Your task to perform on an android device: open device folders in google photos Image 0: 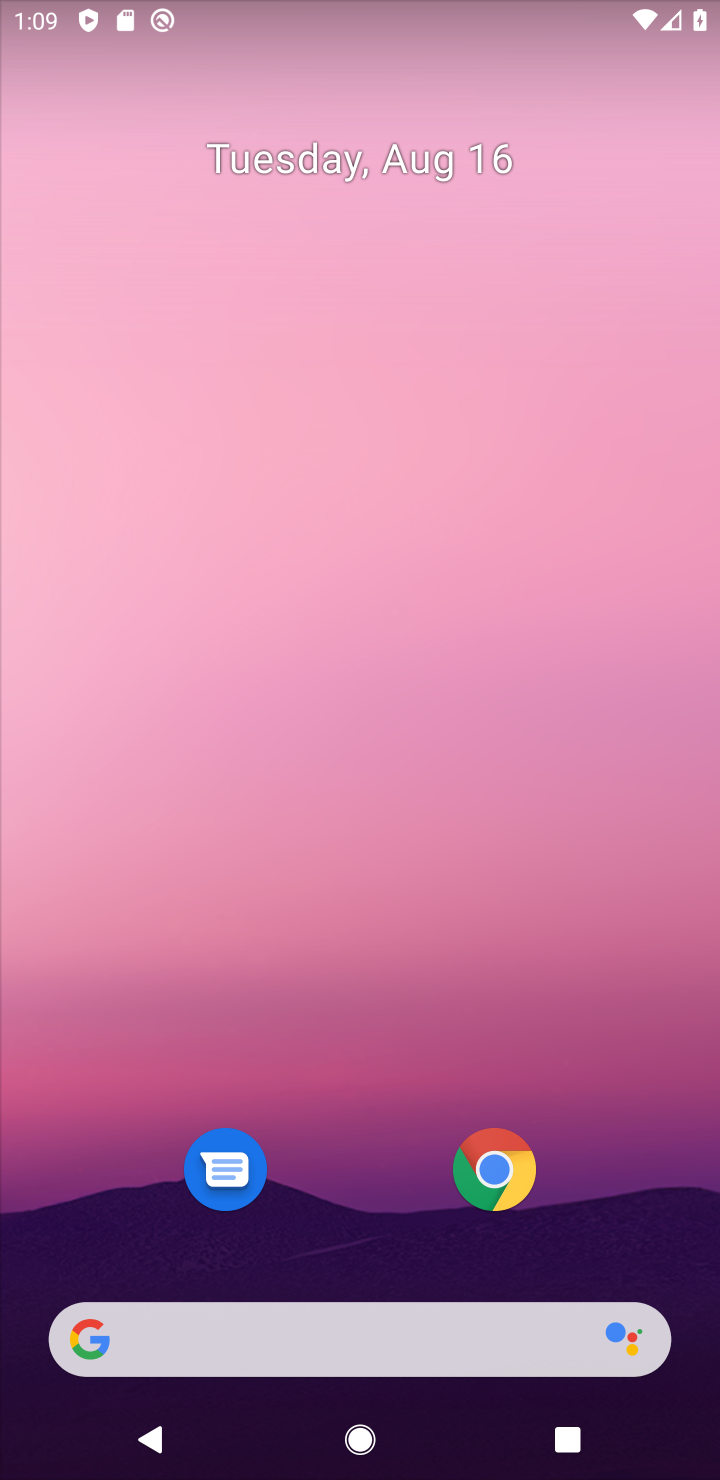
Step 0: drag from (85, 1411) to (466, 179)
Your task to perform on an android device: open device folders in google photos Image 1: 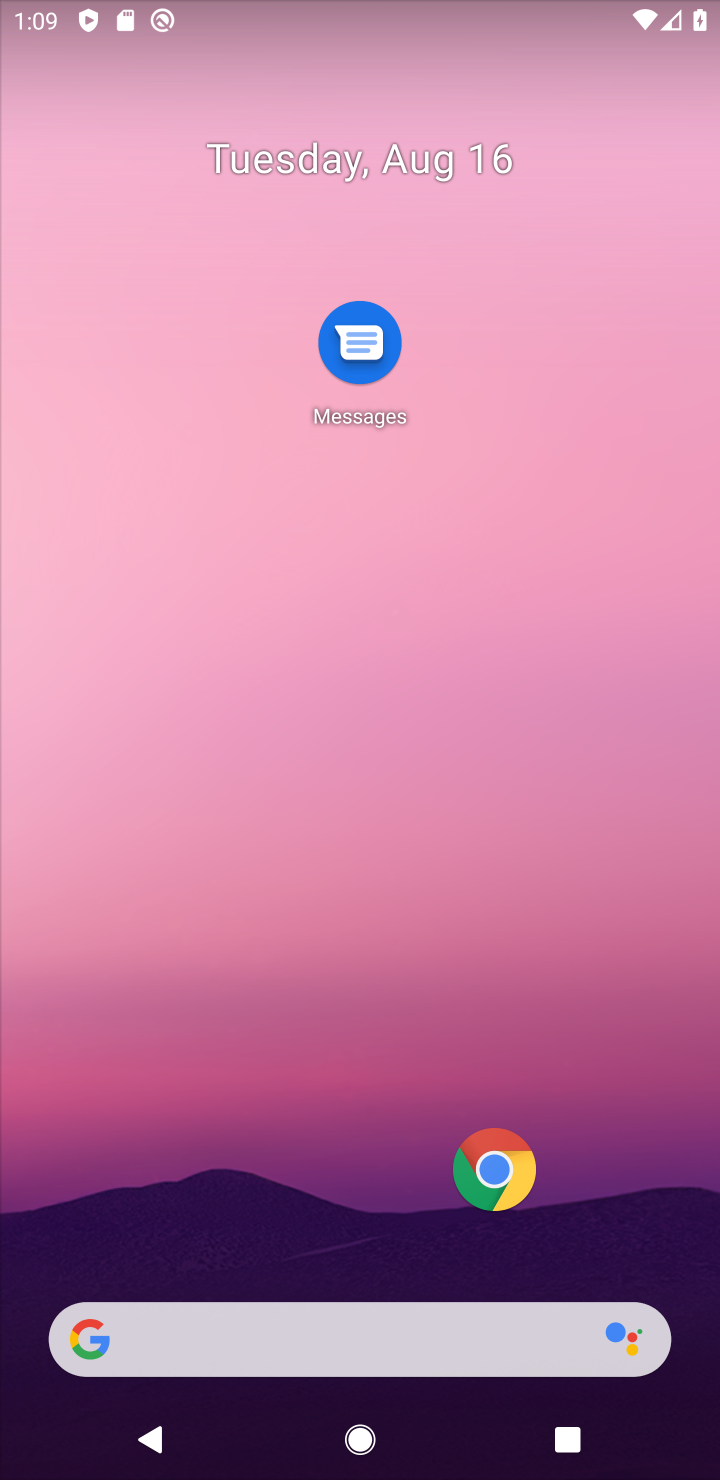
Step 1: drag from (65, 1396) to (275, 33)
Your task to perform on an android device: open device folders in google photos Image 2: 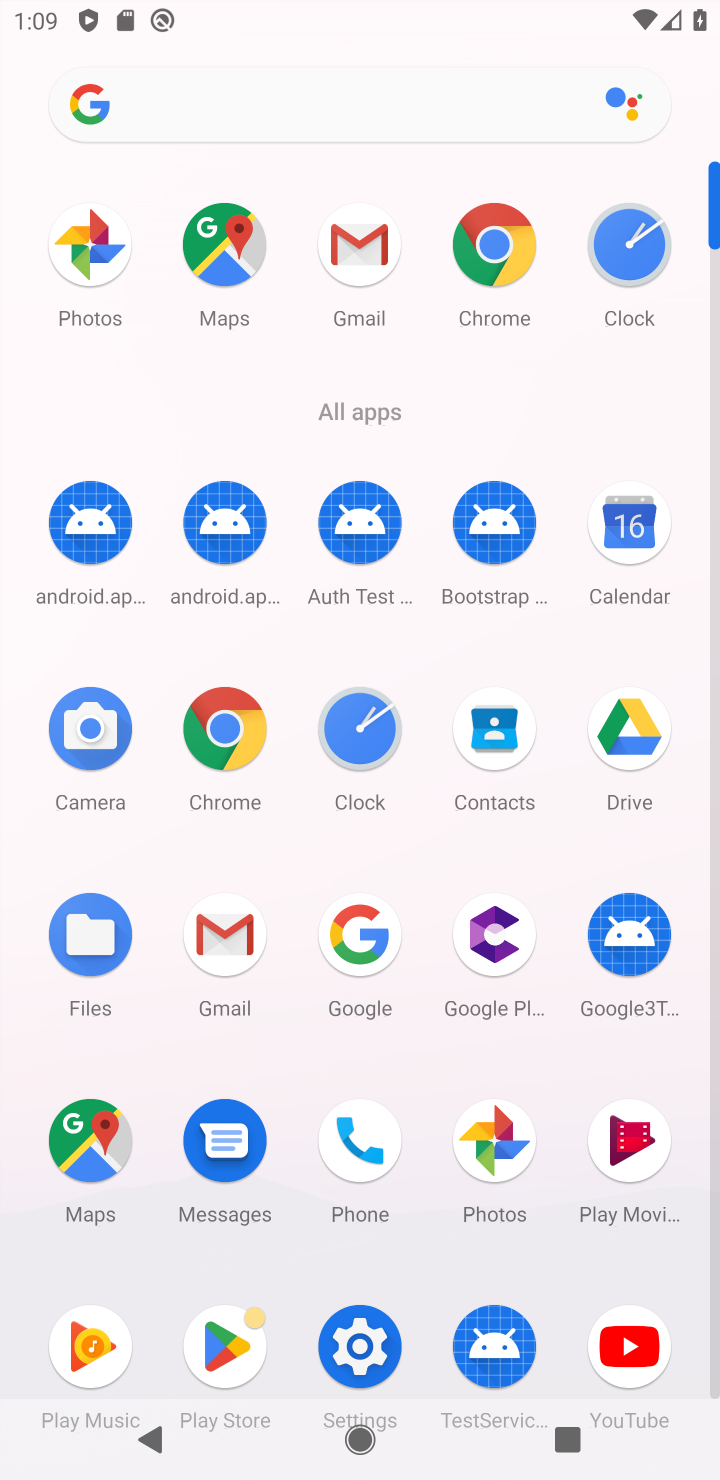
Step 2: click (467, 1134)
Your task to perform on an android device: open device folders in google photos Image 3: 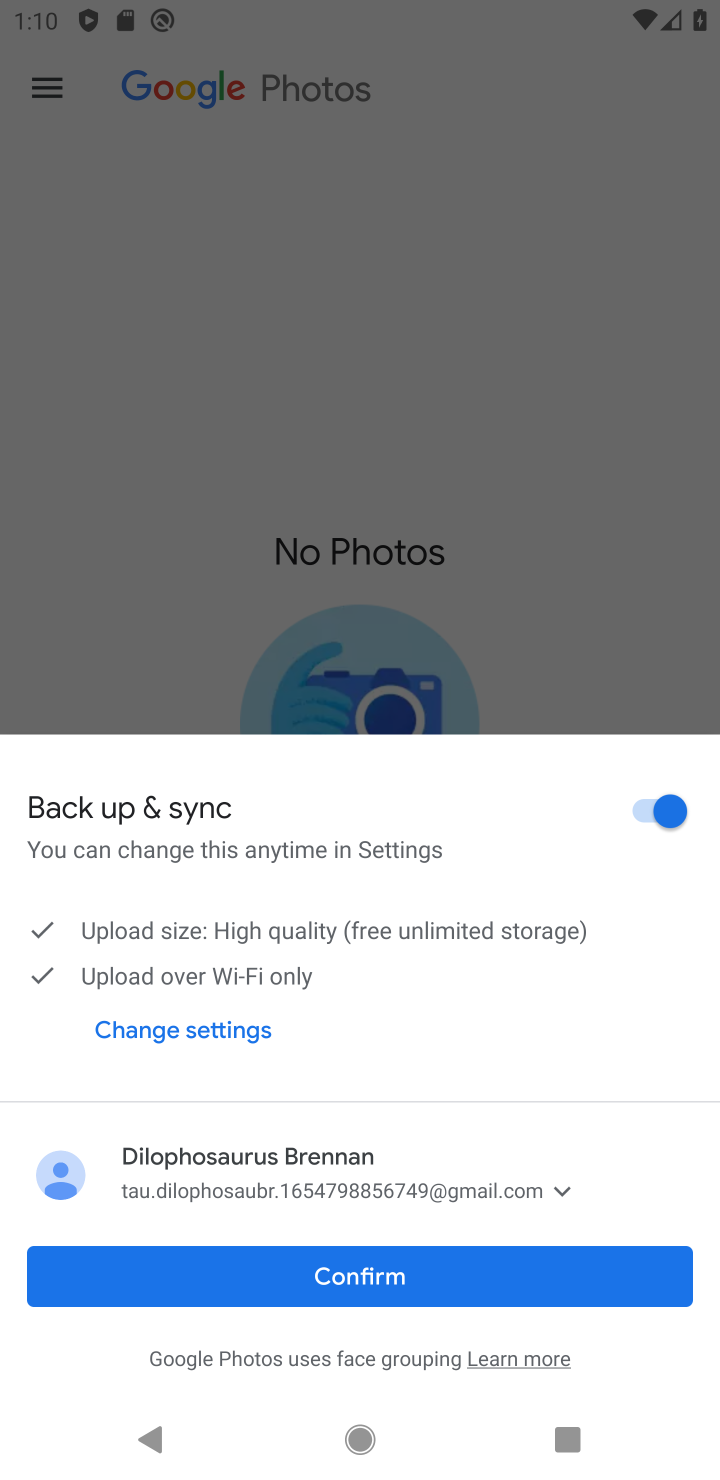
Step 3: click (309, 1279)
Your task to perform on an android device: open device folders in google photos Image 4: 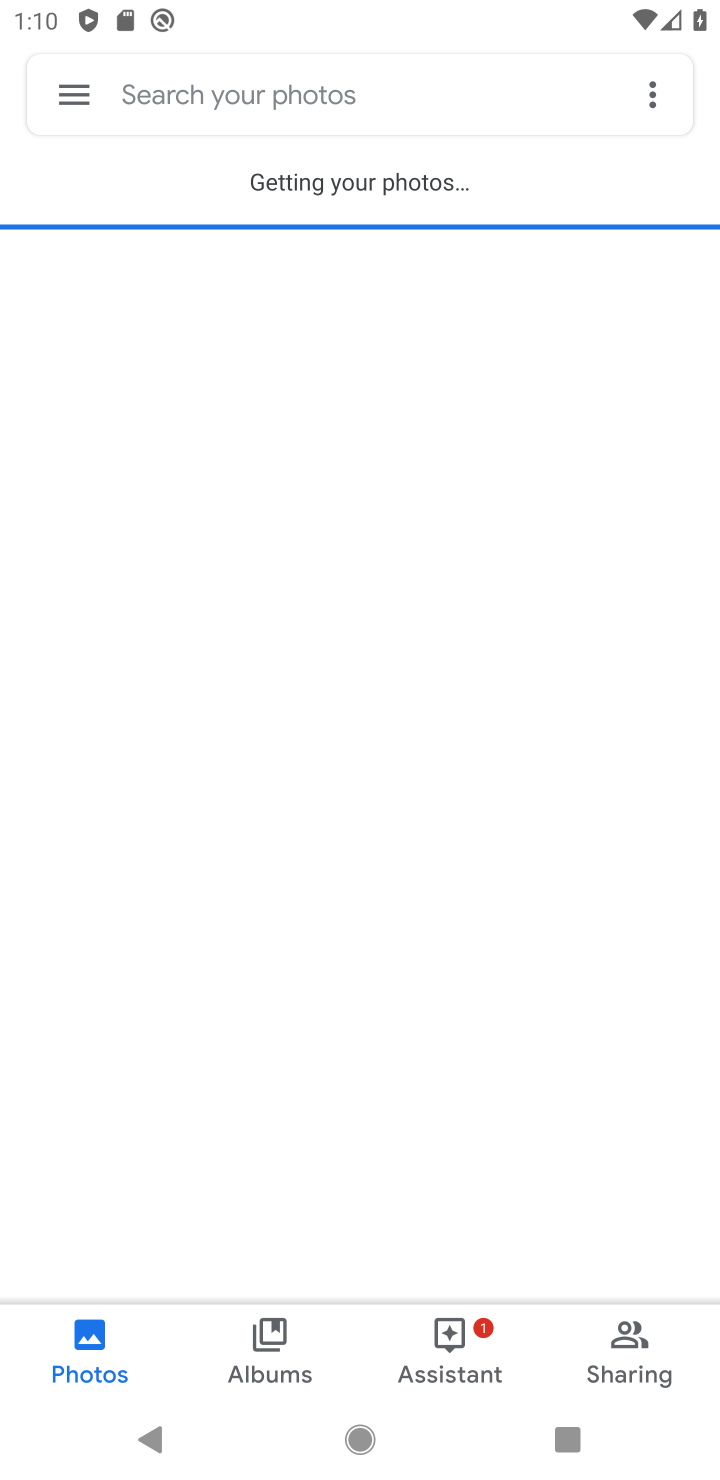
Step 4: task complete